Your task to perform on an android device: change keyboard looks Image 0: 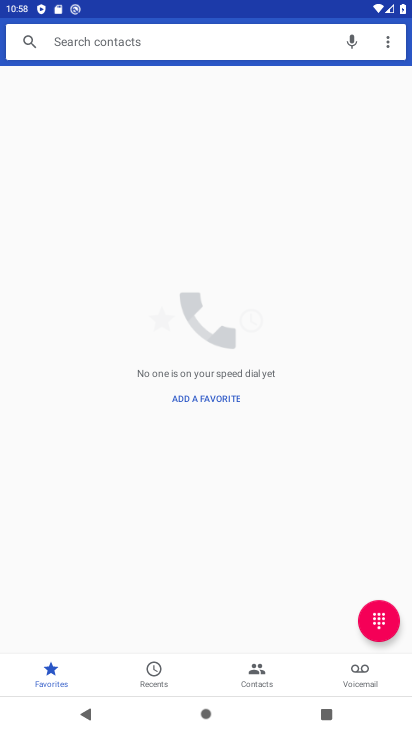
Step 0: press home button
Your task to perform on an android device: change keyboard looks Image 1: 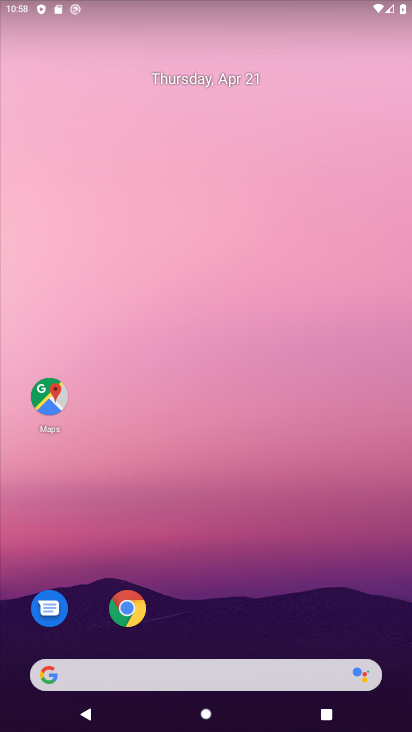
Step 1: drag from (191, 604) to (146, 68)
Your task to perform on an android device: change keyboard looks Image 2: 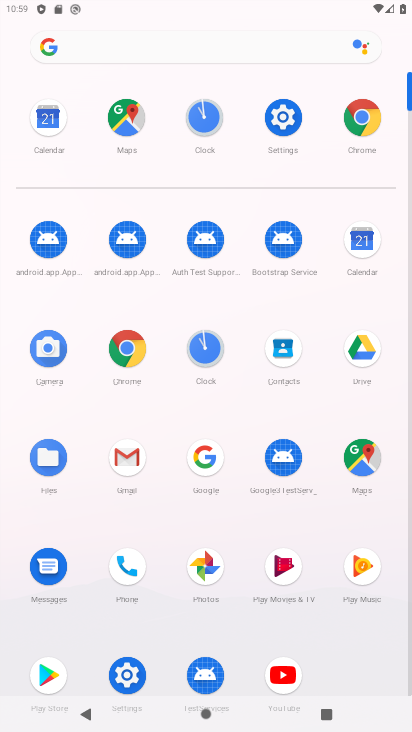
Step 2: click (289, 114)
Your task to perform on an android device: change keyboard looks Image 3: 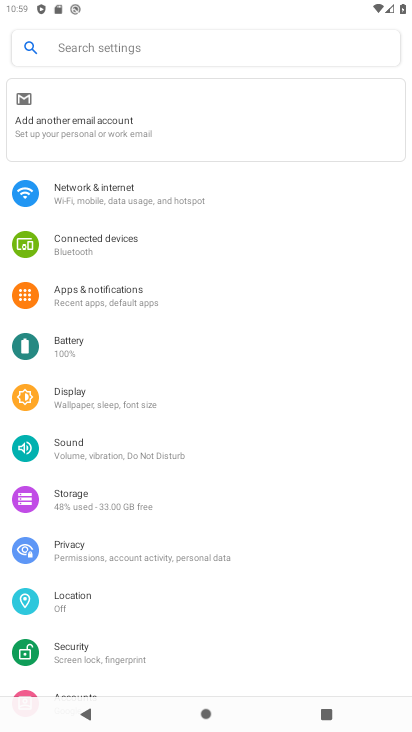
Step 3: drag from (184, 572) to (196, 265)
Your task to perform on an android device: change keyboard looks Image 4: 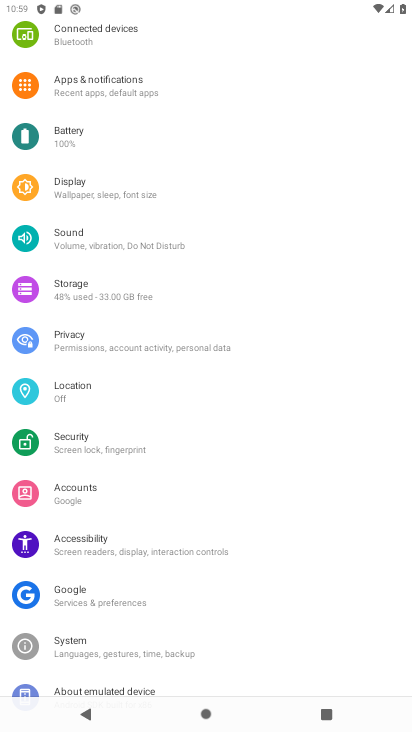
Step 4: drag from (142, 647) to (166, 355)
Your task to perform on an android device: change keyboard looks Image 5: 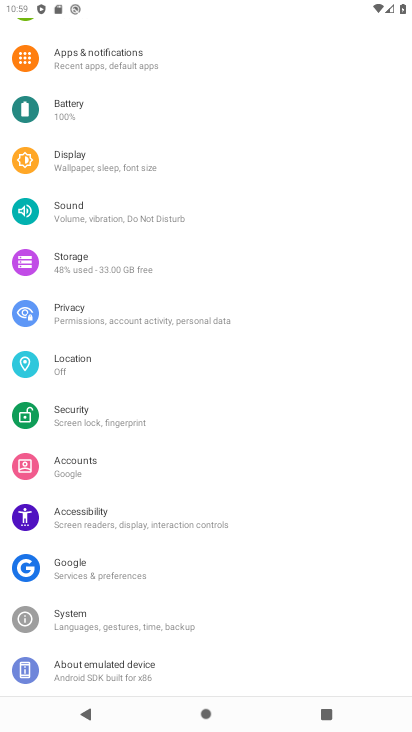
Step 5: click (92, 622)
Your task to perform on an android device: change keyboard looks Image 6: 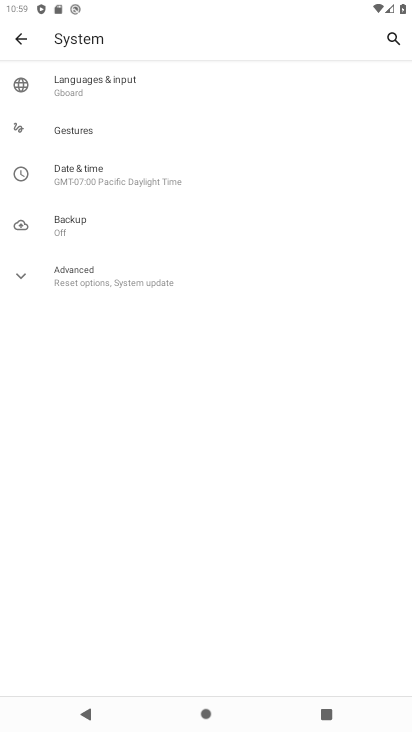
Step 6: click (114, 94)
Your task to perform on an android device: change keyboard looks Image 7: 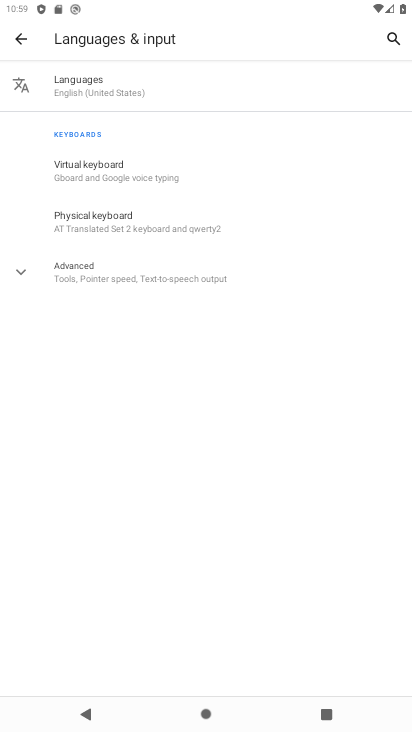
Step 7: click (115, 179)
Your task to perform on an android device: change keyboard looks Image 8: 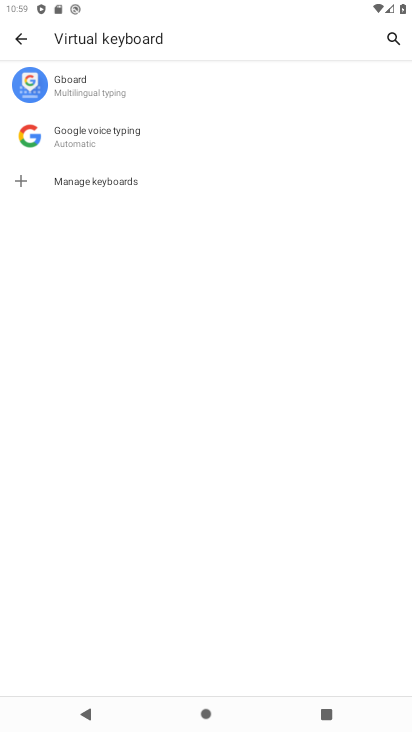
Step 8: click (77, 91)
Your task to perform on an android device: change keyboard looks Image 9: 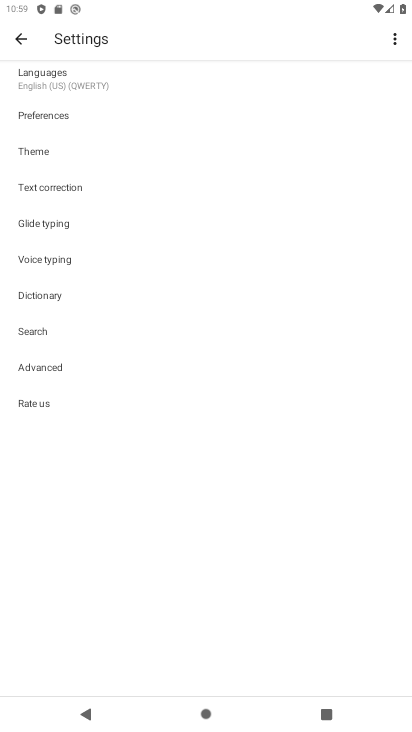
Step 9: click (30, 149)
Your task to perform on an android device: change keyboard looks Image 10: 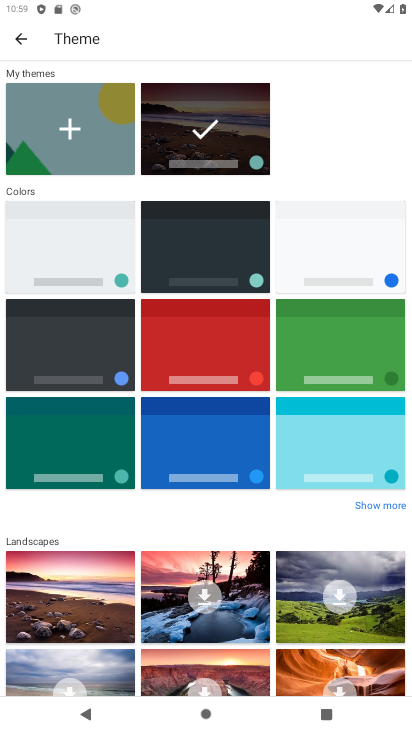
Step 10: click (205, 681)
Your task to perform on an android device: change keyboard looks Image 11: 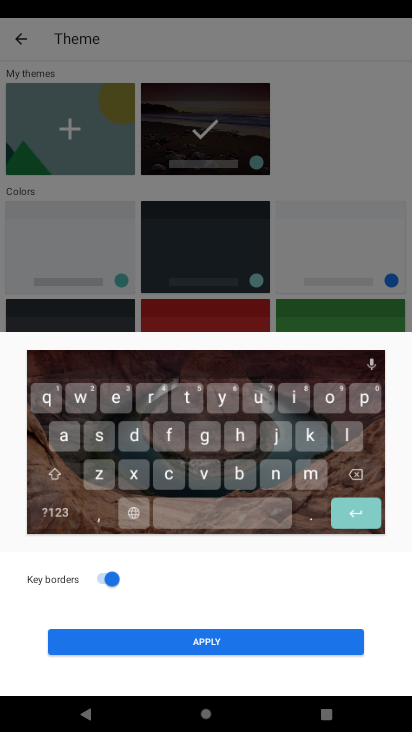
Step 11: click (125, 658)
Your task to perform on an android device: change keyboard looks Image 12: 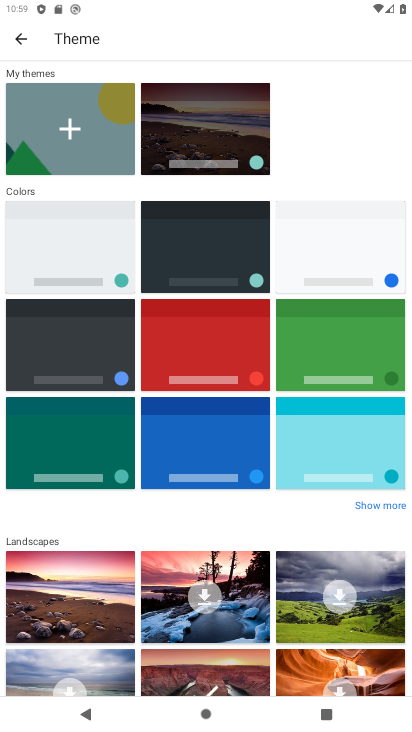
Step 12: task complete